Your task to perform on an android device: Open settings Image 0: 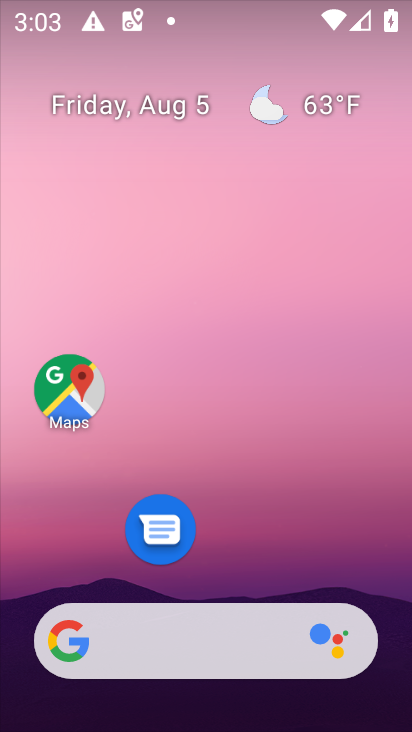
Step 0: drag from (277, 620) to (317, 191)
Your task to perform on an android device: Open settings Image 1: 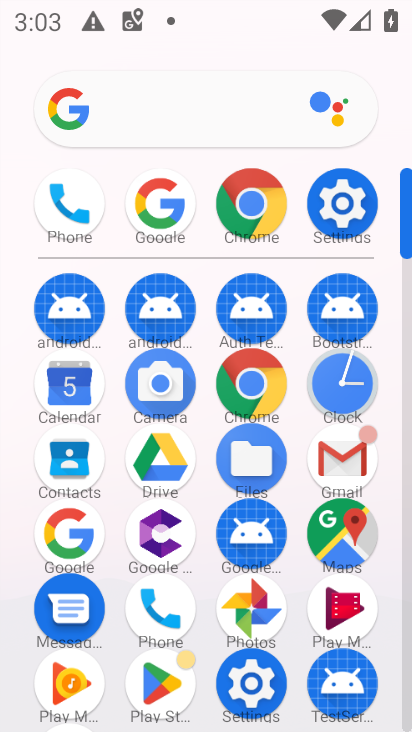
Step 1: click (265, 681)
Your task to perform on an android device: Open settings Image 2: 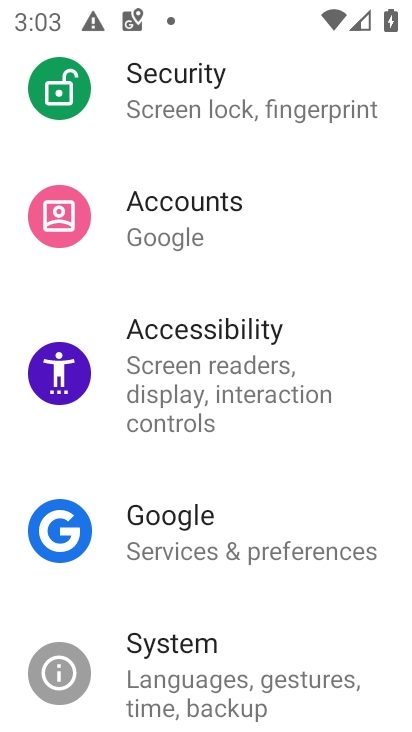
Step 2: task complete